Your task to perform on an android device: Is it going to rain this weekend? Image 0: 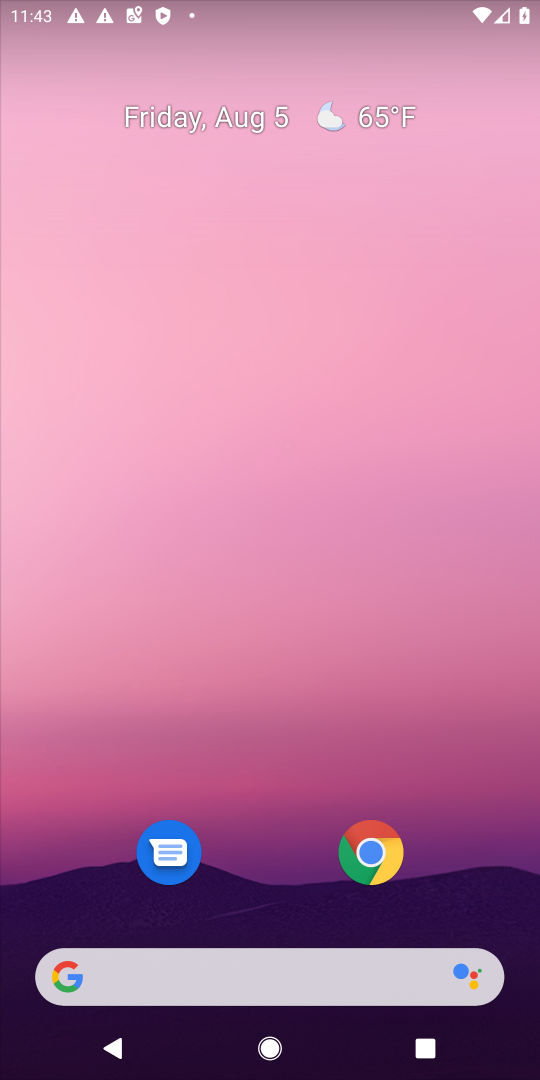
Step 0: drag from (420, 1001) to (336, 308)
Your task to perform on an android device: Is it going to rain this weekend? Image 1: 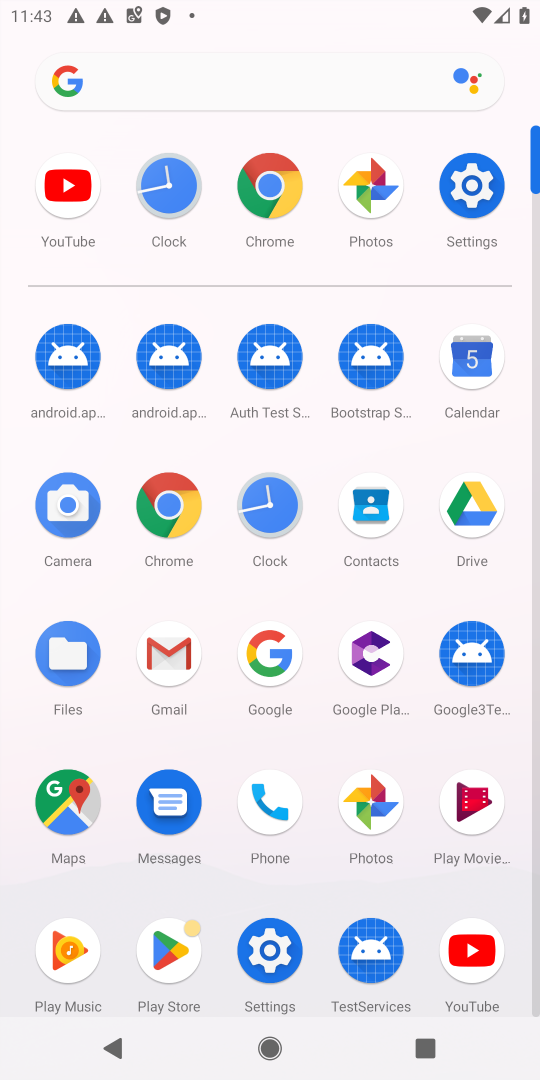
Step 1: click (181, 89)
Your task to perform on an android device: Is it going to rain this weekend? Image 2: 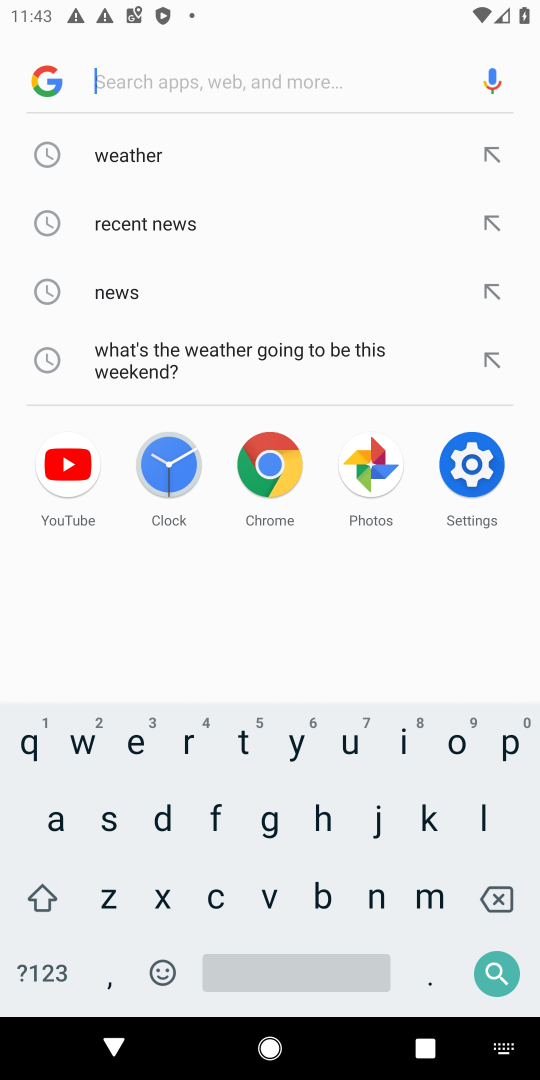
Step 2: click (399, 735)
Your task to perform on an android device: Is it going to rain this weekend? Image 3: 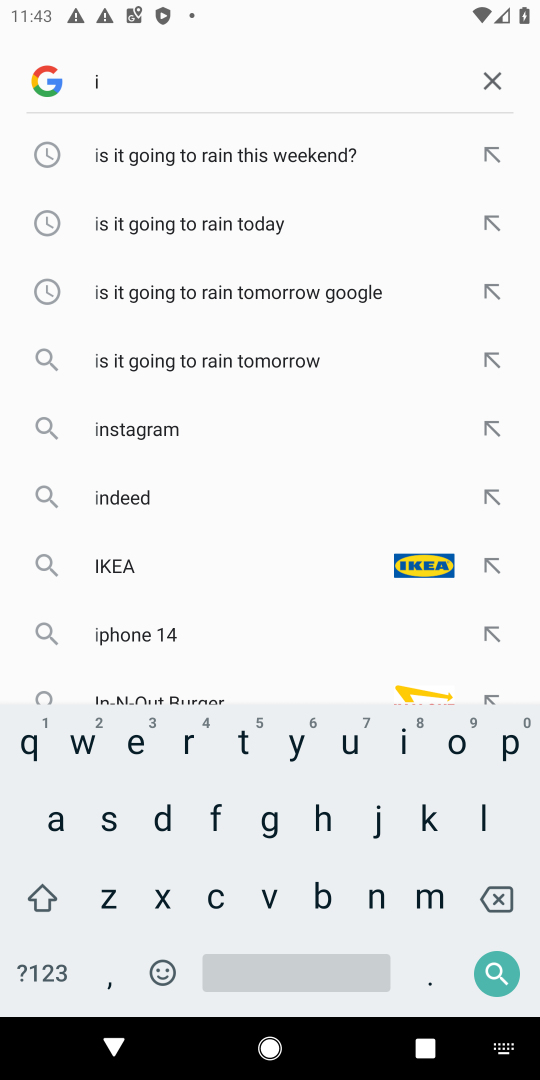
Step 3: click (228, 158)
Your task to perform on an android device: Is it going to rain this weekend? Image 4: 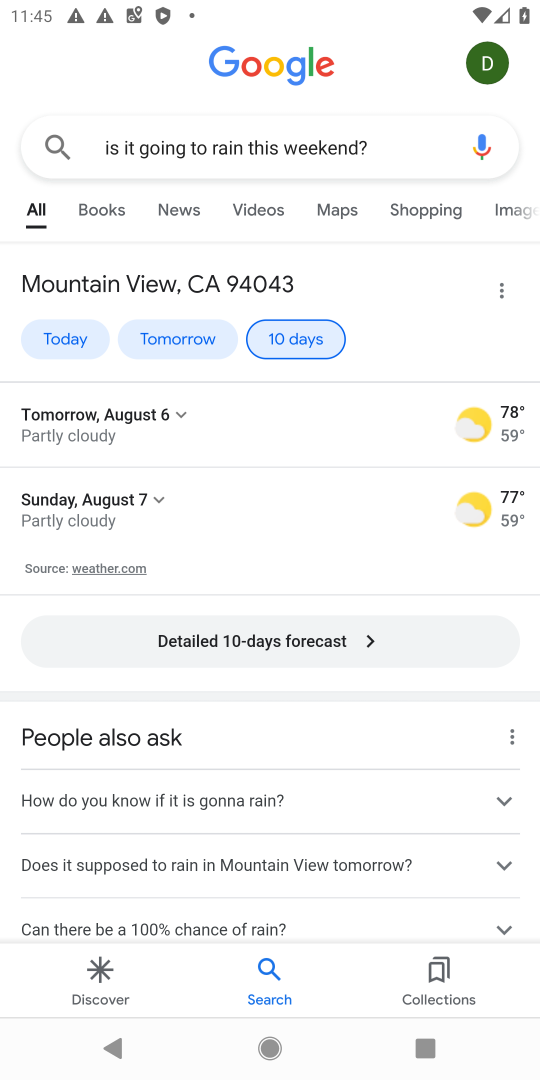
Step 4: task complete